Your task to perform on an android device: change notifications settings Image 0: 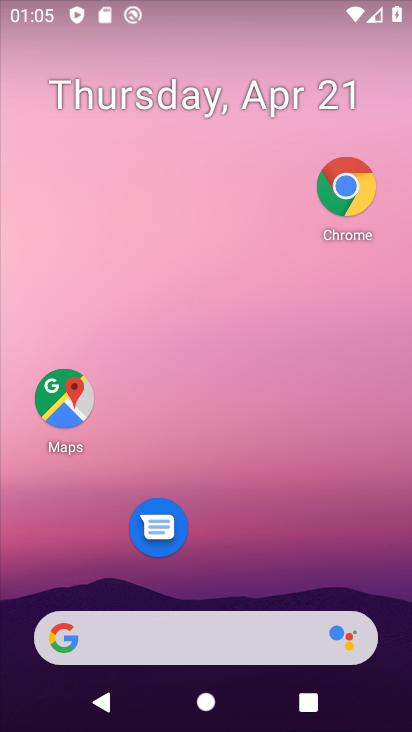
Step 0: drag from (225, 490) to (266, 263)
Your task to perform on an android device: change notifications settings Image 1: 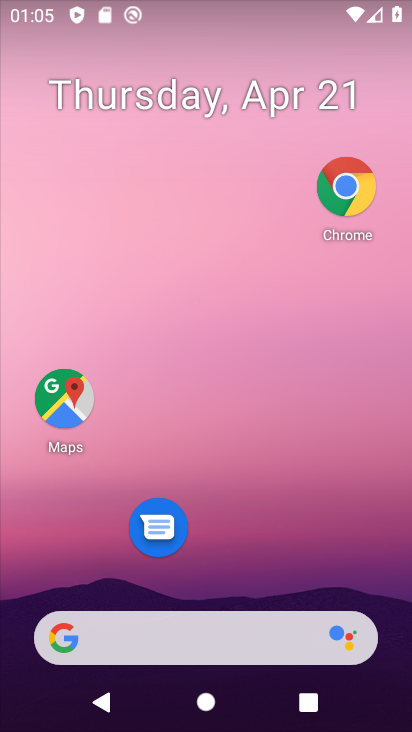
Step 1: drag from (206, 482) to (249, 197)
Your task to perform on an android device: change notifications settings Image 2: 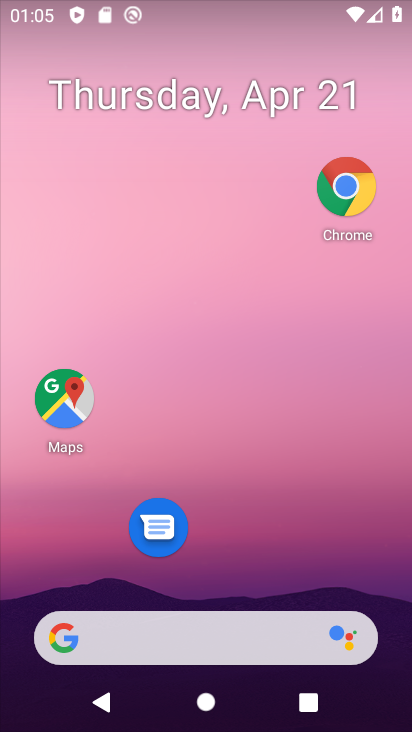
Step 2: drag from (213, 560) to (322, 74)
Your task to perform on an android device: change notifications settings Image 3: 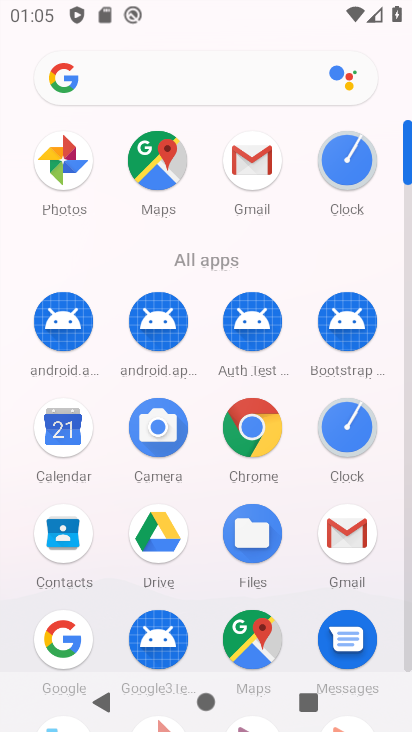
Step 3: drag from (202, 608) to (206, 134)
Your task to perform on an android device: change notifications settings Image 4: 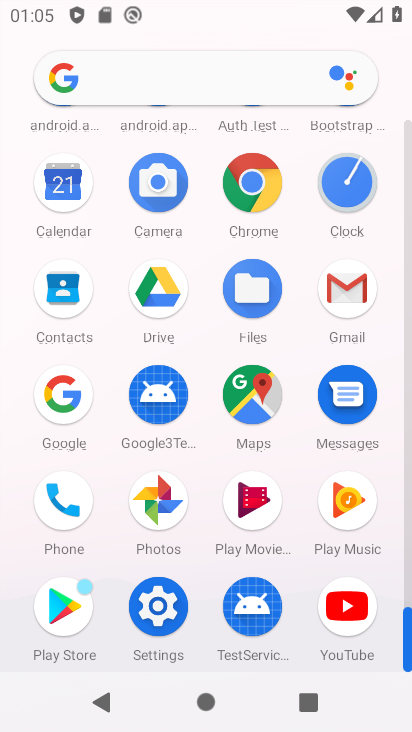
Step 4: click (167, 593)
Your task to perform on an android device: change notifications settings Image 5: 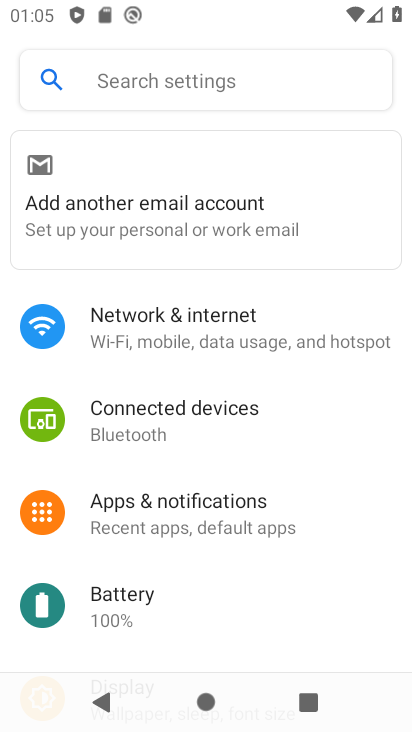
Step 5: click (166, 499)
Your task to perform on an android device: change notifications settings Image 6: 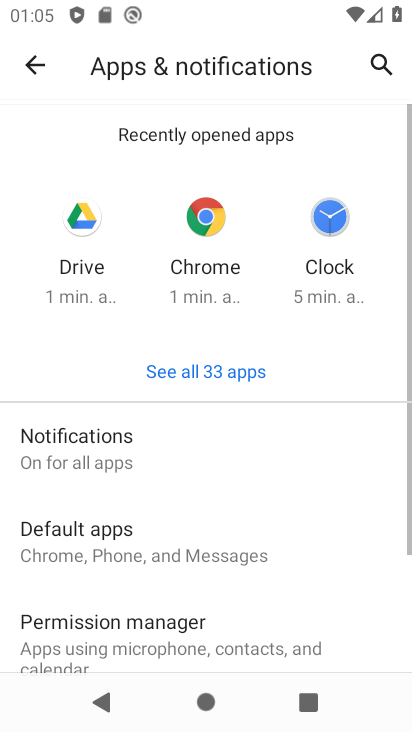
Step 6: click (148, 460)
Your task to perform on an android device: change notifications settings Image 7: 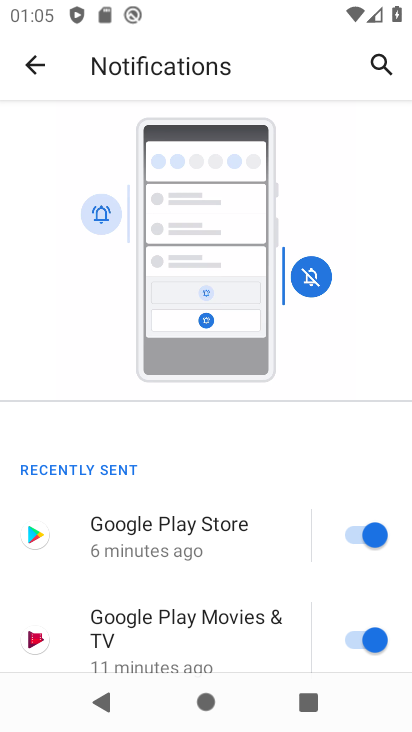
Step 7: drag from (172, 533) to (309, 64)
Your task to perform on an android device: change notifications settings Image 8: 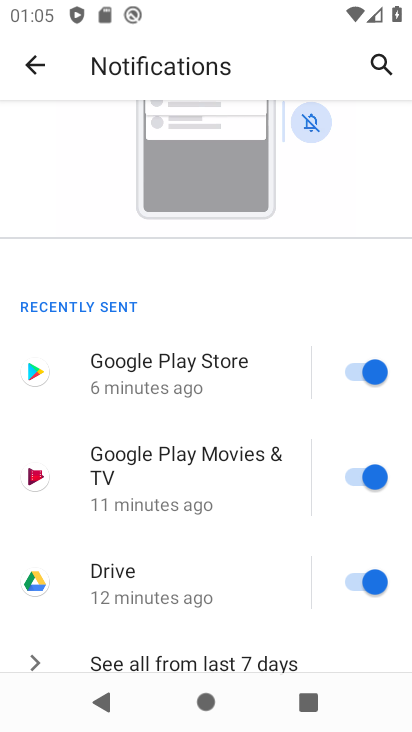
Step 8: drag from (223, 606) to (278, 137)
Your task to perform on an android device: change notifications settings Image 9: 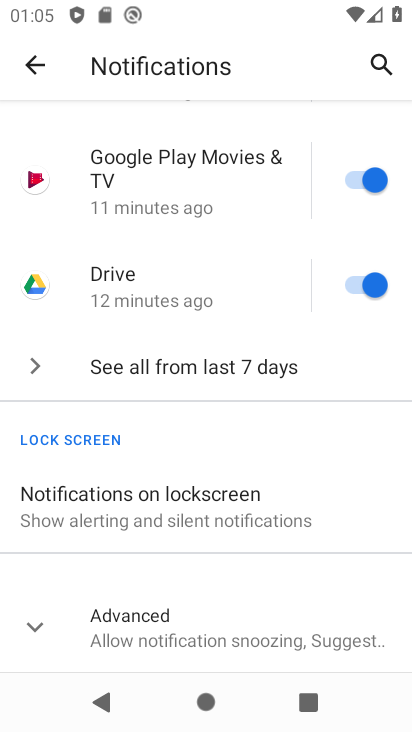
Step 9: click (174, 611)
Your task to perform on an android device: change notifications settings Image 10: 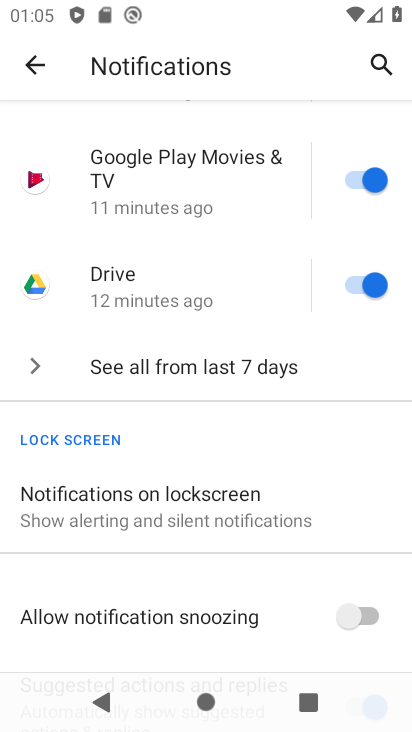
Step 10: click (365, 290)
Your task to perform on an android device: change notifications settings Image 11: 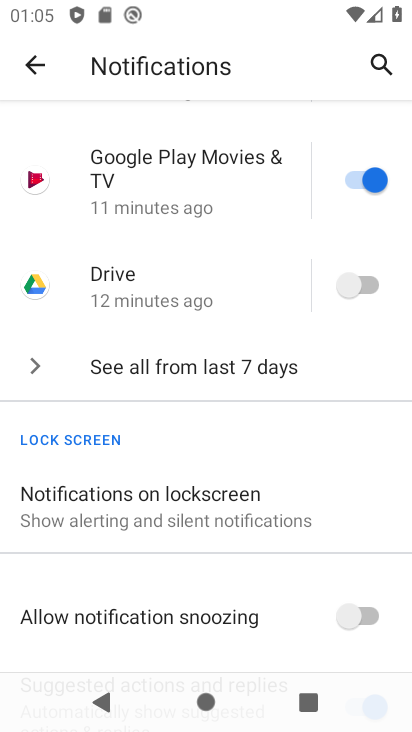
Step 11: task complete